Your task to perform on an android device: Go to Google Image 0: 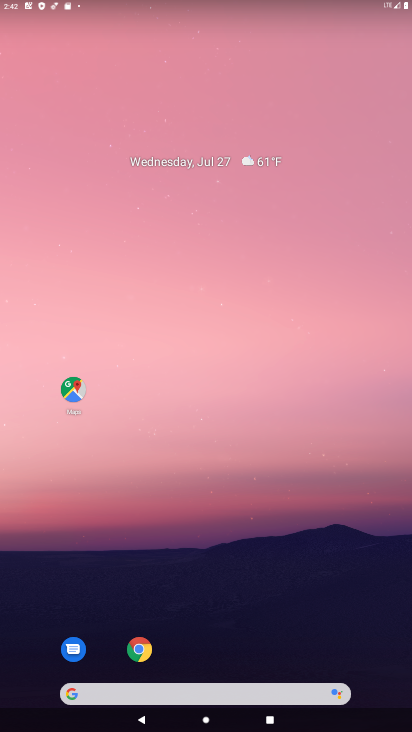
Step 0: click (156, 691)
Your task to perform on an android device: Go to Google Image 1: 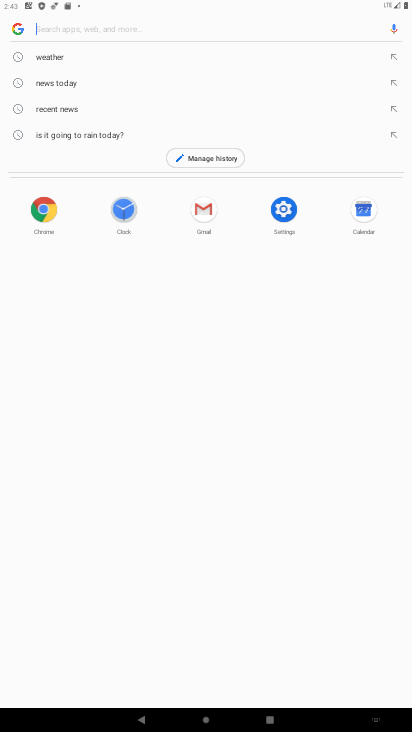
Step 1: task complete